Your task to perform on an android device: Is it going to rain tomorrow? Image 0: 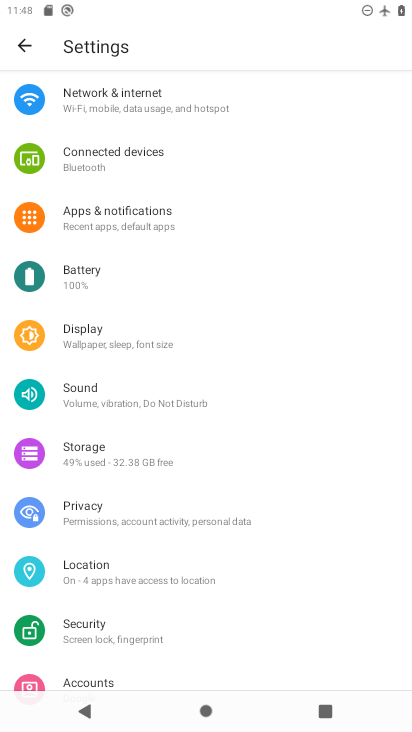
Step 0: drag from (219, 269) to (256, 497)
Your task to perform on an android device: Is it going to rain tomorrow? Image 1: 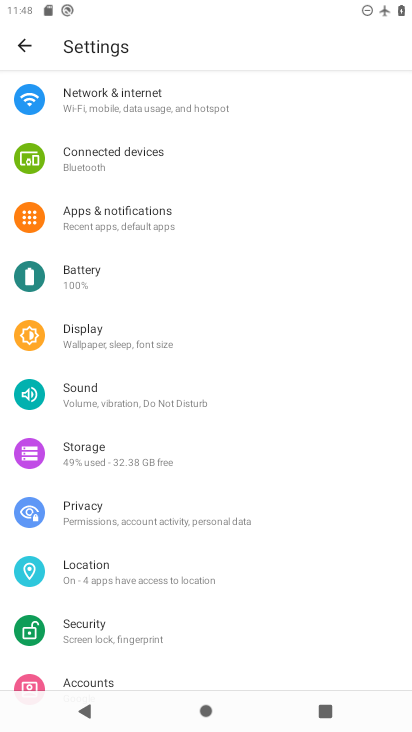
Step 1: press home button
Your task to perform on an android device: Is it going to rain tomorrow? Image 2: 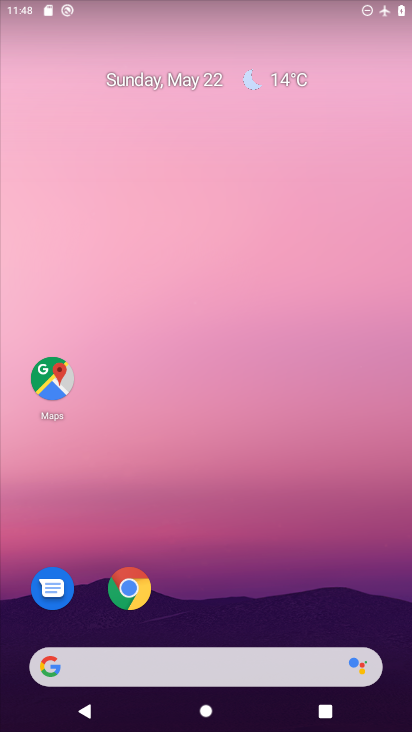
Step 2: drag from (256, 575) to (281, 136)
Your task to perform on an android device: Is it going to rain tomorrow? Image 3: 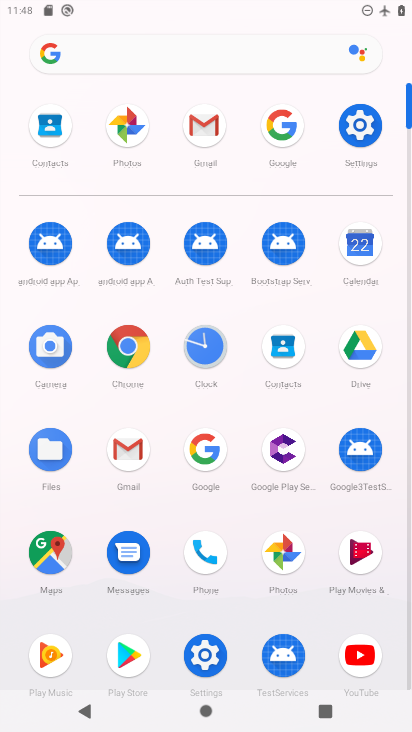
Step 3: click (201, 445)
Your task to perform on an android device: Is it going to rain tomorrow? Image 4: 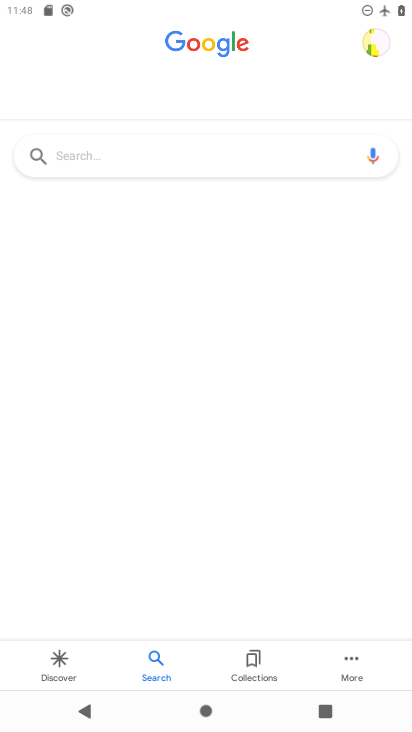
Step 4: click (208, 140)
Your task to perform on an android device: Is it going to rain tomorrow? Image 5: 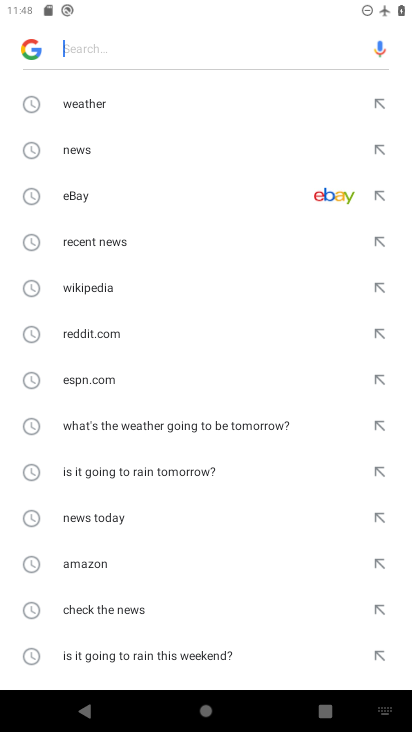
Step 5: click (133, 99)
Your task to perform on an android device: Is it going to rain tomorrow? Image 6: 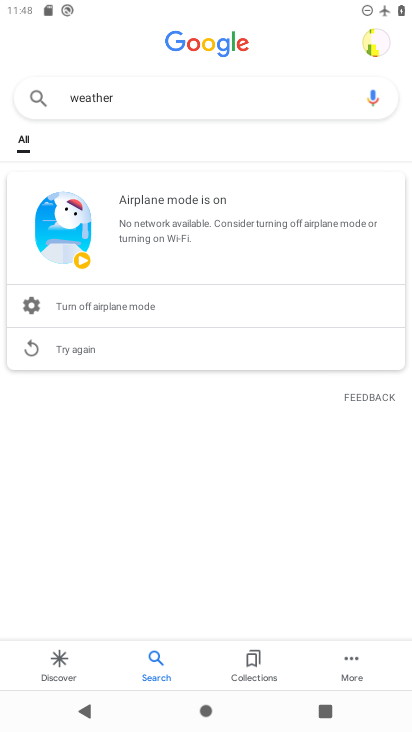
Step 6: task complete